Your task to perform on an android device: Turn on the flashlight Image 0: 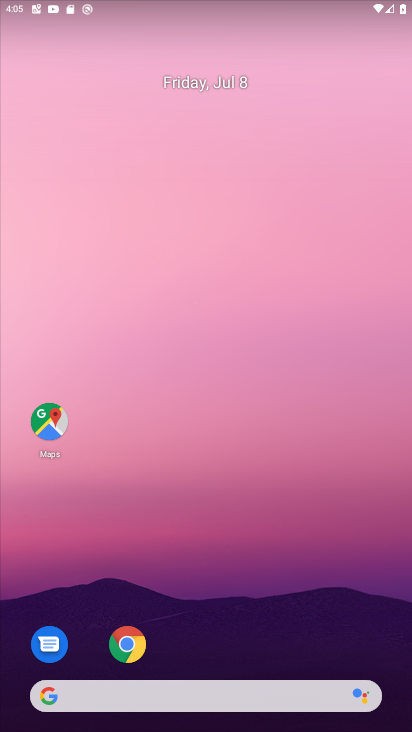
Step 0: drag from (247, 8) to (230, 326)
Your task to perform on an android device: Turn on the flashlight Image 1: 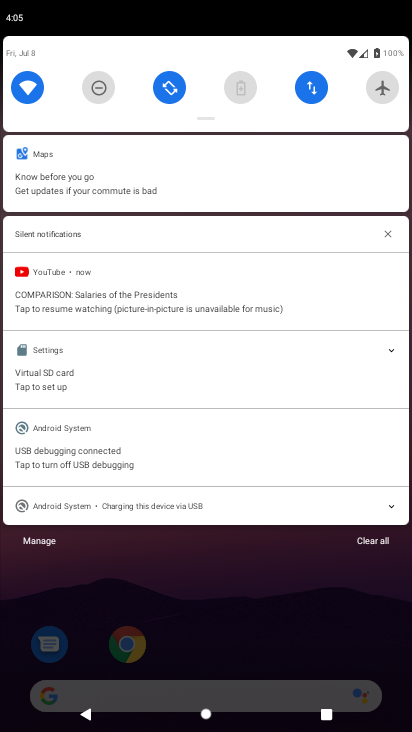
Step 1: drag from (203, 112) to (203, 339)
Your task to perform on an android device: Turn on the flashlight Image 2: 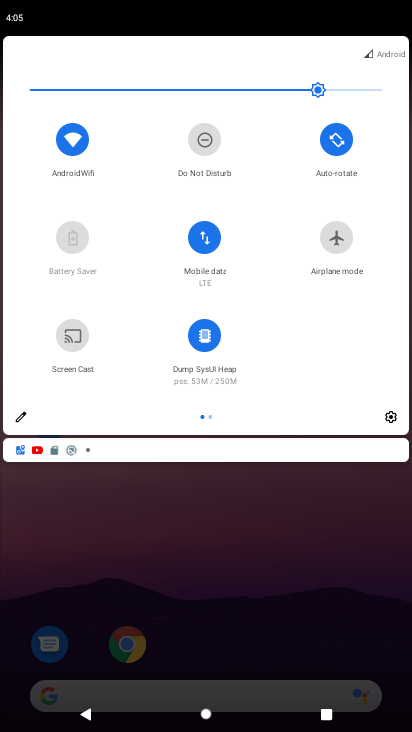
Step 2: click (17, 420)
Your task to perform on an android device: Turn on the flashlight Image 3: 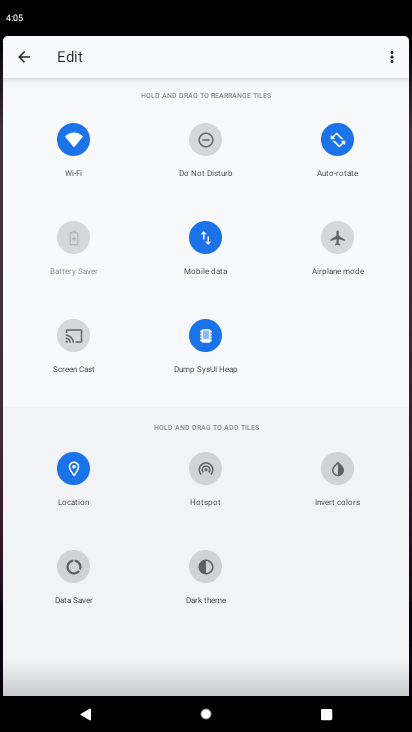
Step 3: task complete